Your task to perform on an android device: delete a single message in the gmail app Image 0: 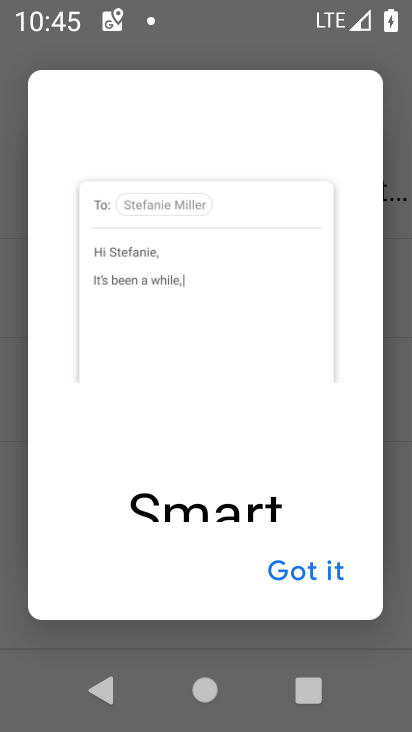
Step 0: press home button
Your task to perform on an android device: delete a single message in the gmail app Image 1: 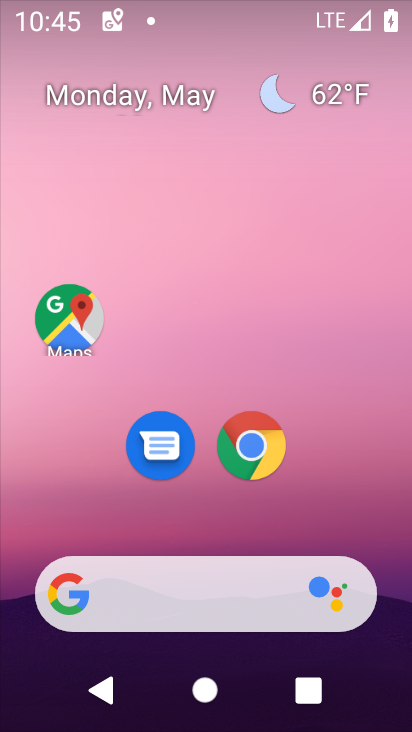
Step 1: drag from (403, 646) to (281, 77)
Your task to perform on an android device: delete a single message in the gmail app Image 2: 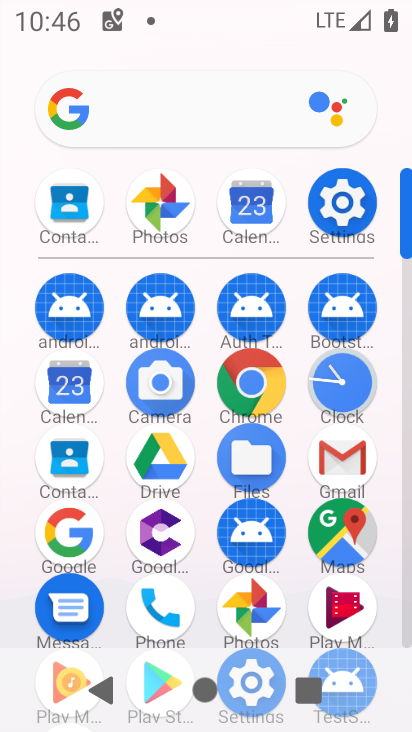
Step 2: click (332, 446)
Your task to perform on an android device: delete a single message in the gmail app Image 3: 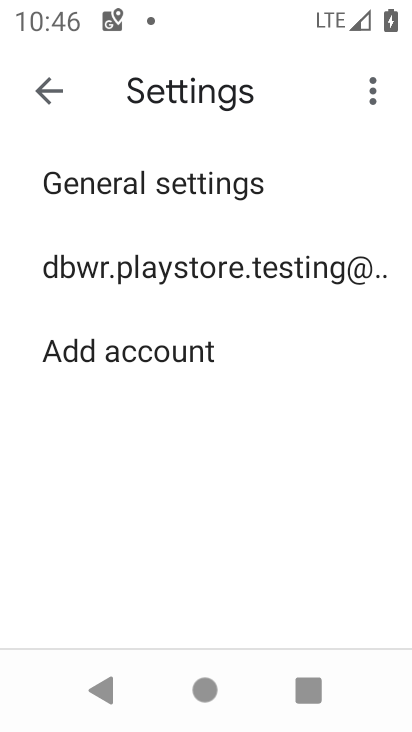
Step 3: task complete